Your task to perform on an android device: Search for Mexican restaurants on Maps Image 0: 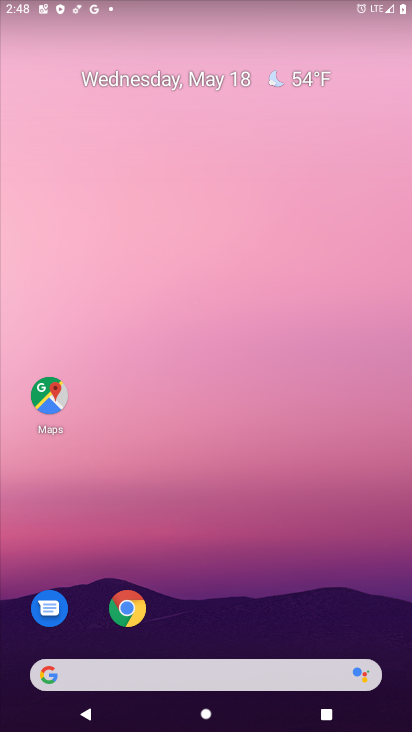
Step 0: click (54, 402)
Your task to perform on an android device: Search for Mexican restaurants on Maps Image 1: 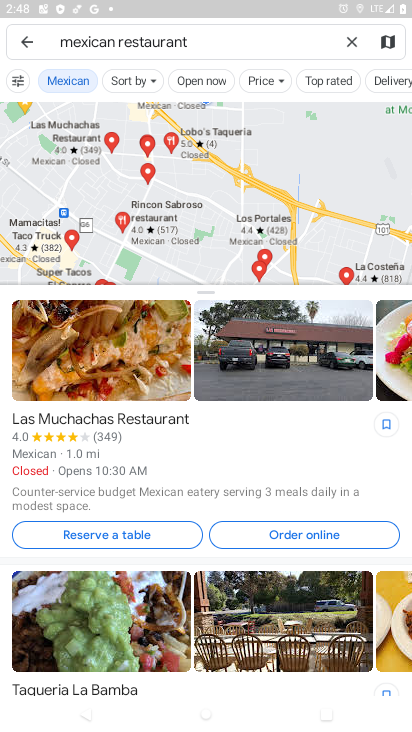
Step 1: task complete